Your task to perform on an android device: toggle pop-ups in chrome Image 0: 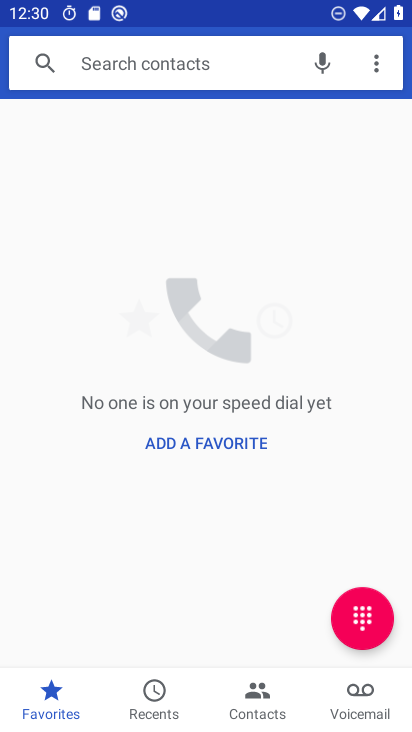
Step 0: press home button
Your task to perform on an android device: toggle pop-ups in chrome Image 1: 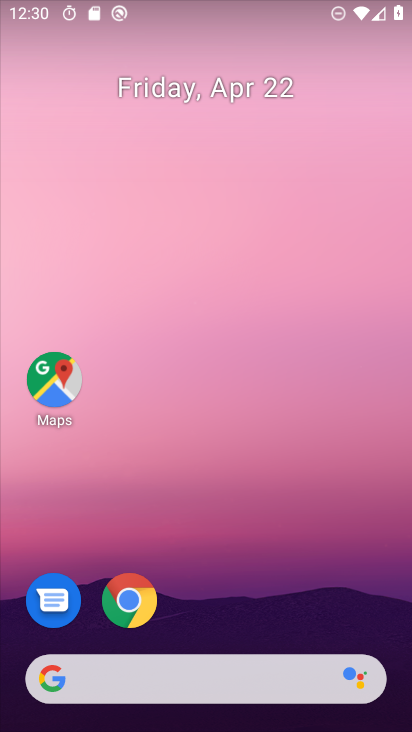
Step 1: click (127, 599)
Your task to perform on an android device: toggle pop-ups in chrome Image 2: 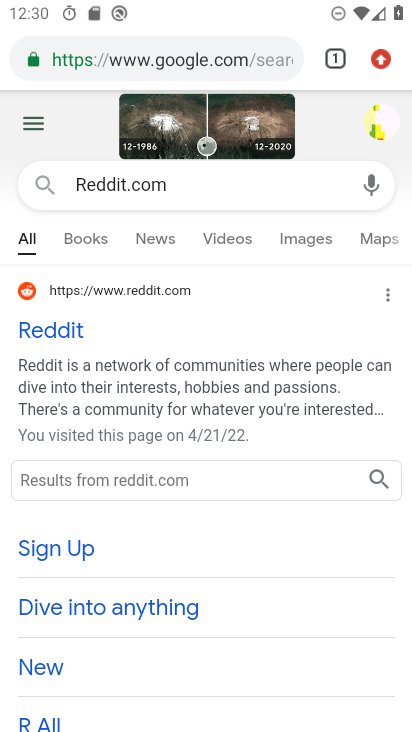
Step 2: click (380, 59)
Your task to perform on an android device: toggle pop-ups in chrome Image 3: 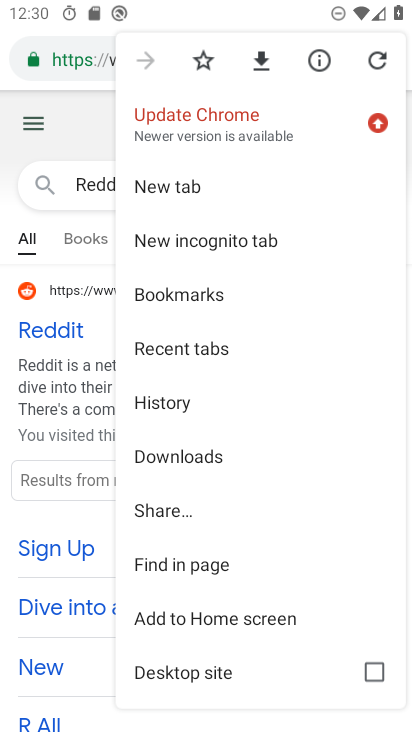
Step 3: drag from (235, 460) to (260, 378)
Your task to perform on an android device: toggle pop-ups in chrome Image 4: 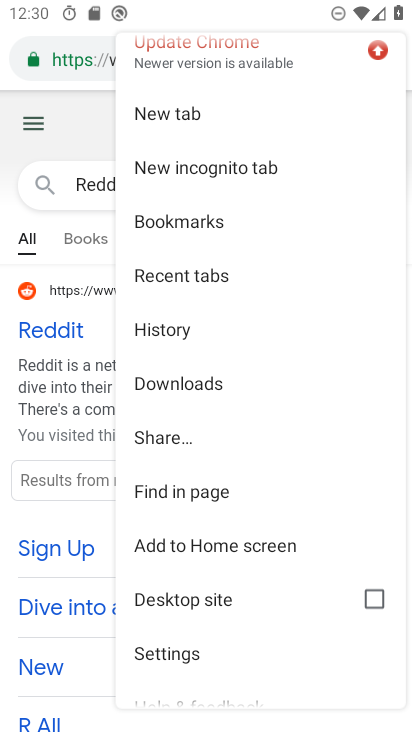
Step 4: drag from (254, 438) to (269, 359)
Your task to perform on an android device: toggle pop-ups in chrome Image 5: 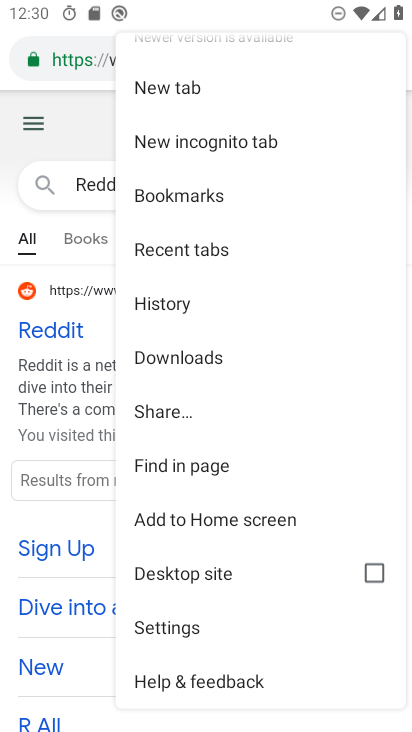
Step 5: click (162, 631)
Your task to perform on an android device: toggle pop-ups in chrome Image 6: 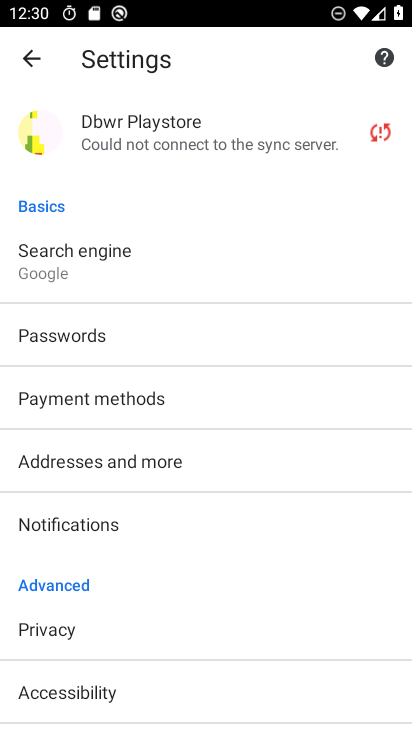
Step 6: drag from (166, 544) to (229, 430)
Your task to perform on an android device: toggle pop-ups in chrome Image 7: 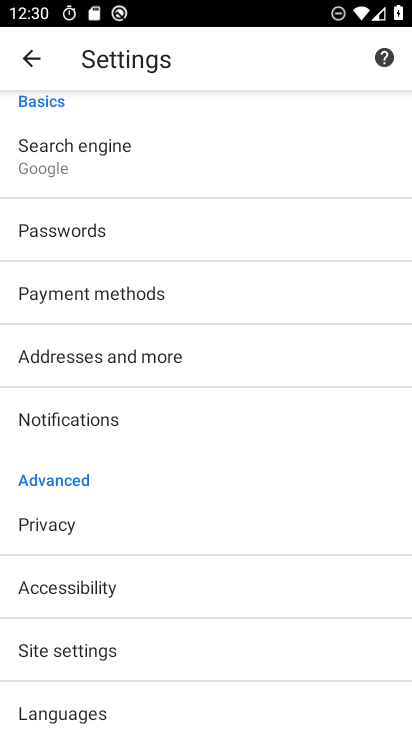
Step 7: drag from (151, 504) to (210, 412)
Your task to perform on an android device: toggle pop-ups in chrome Image 8: 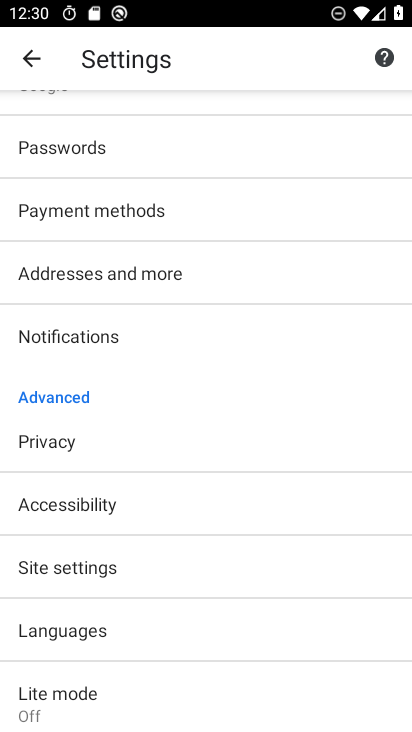
Step 8: drag from (158, 497) to (182, 458)
Your task to perform on an android device: toggle pop-ups in chrome Image 9: 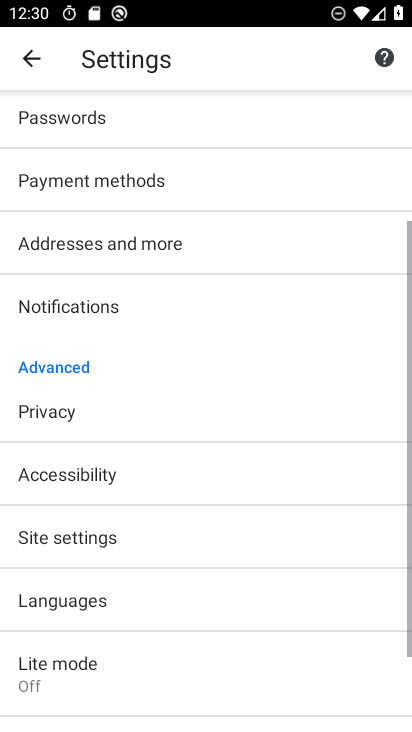
Step 9: drag from (143, 538) to (214, 447)
Your task to perform on an android device: toggle pop-ups in chrome Image 10: 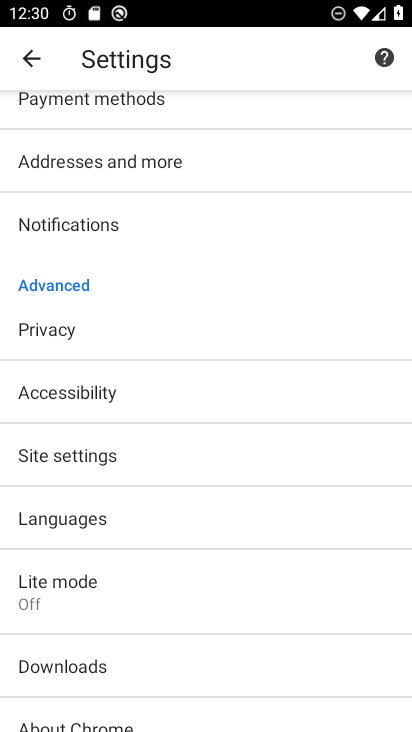
Step 10: click (111, 456)
Your task to perform on an android device: toggle pop-ups in chrome Image 11: 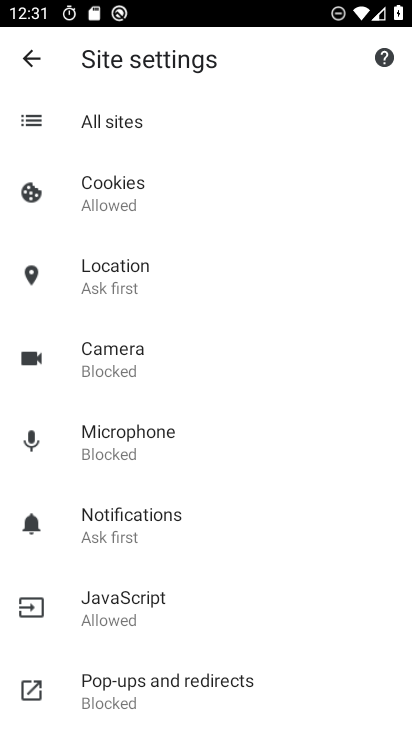
Step 11: drag from (173, 572) to (244, 463)
Your task to perform on an android device: toggle pop-ups in chrome Image 12: 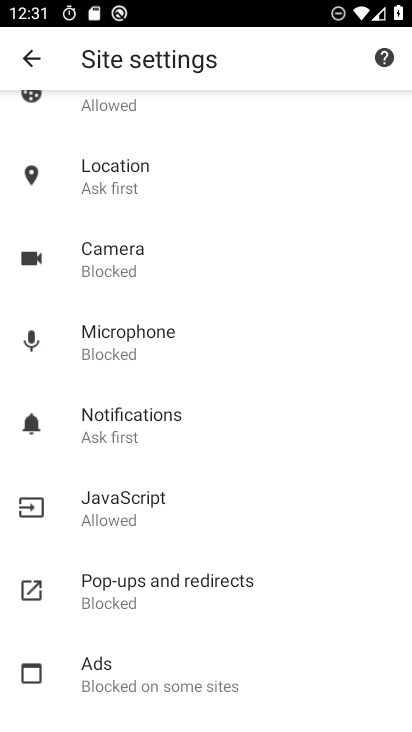
Step 12: click (189, 573)
Your task to perform on an android device: toggle pop-ups in chrome Image 13: 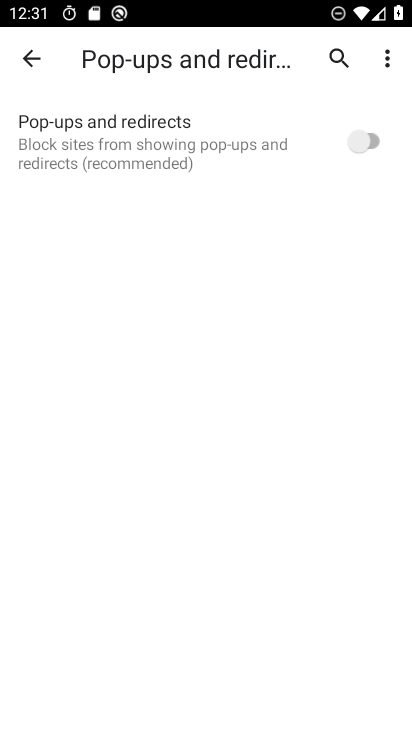
Step 13: click (366, 138)
Your task to perform on an android device: toggle pop-ups in chrome Image 14: 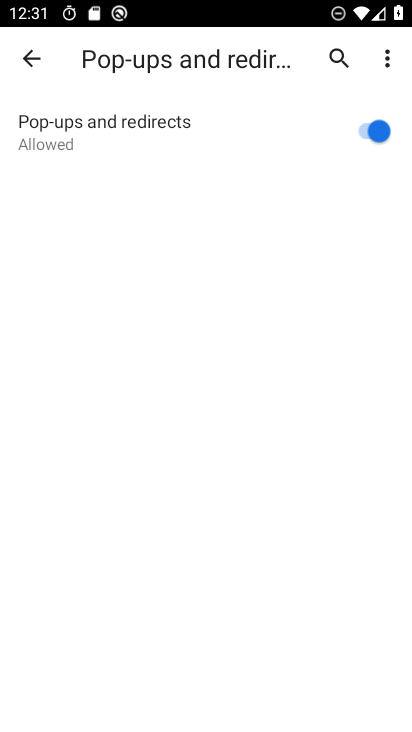
Step 14: task complete